Your task to perform on an android device: Open Google Image 0: 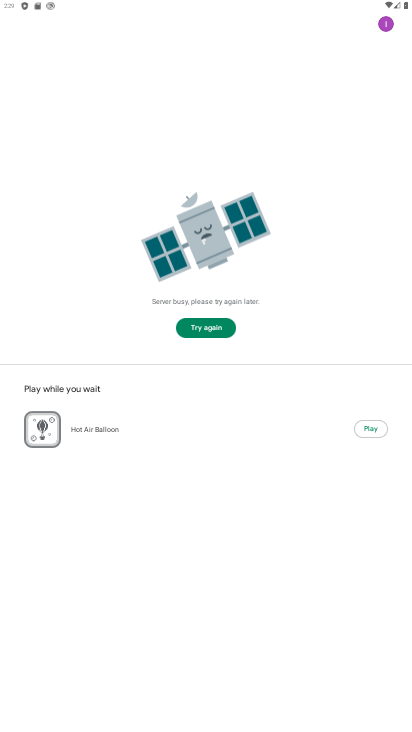
Step 0: press home button
Your task to perform on an android device: Open Google Image 1: 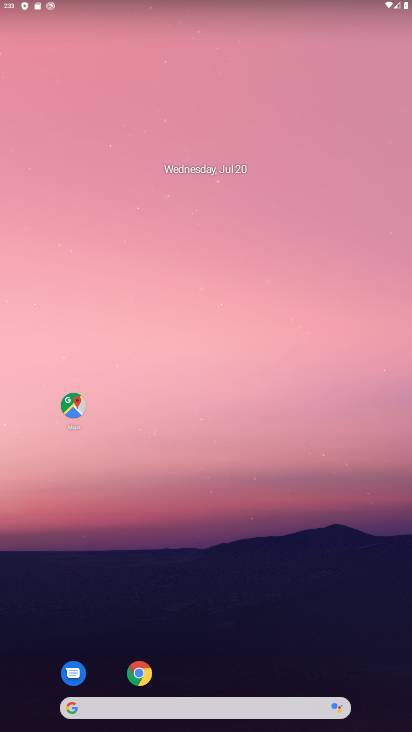
Step 1: click (244, 539)
Your task to perform on an android device: Open Google Image 2: 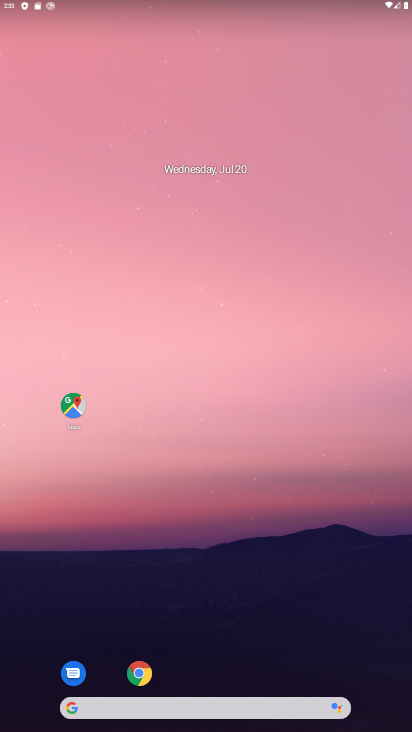
Step 2: click (137, 711)
Your task to perform on an android device: Open Google Image 3: 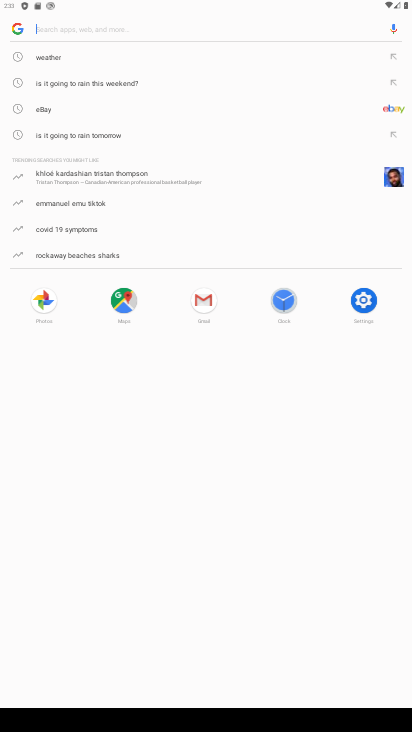
Step 3: task complete